Your task to perform on an android device: Search for pizza restaurants on Maps Image 0: 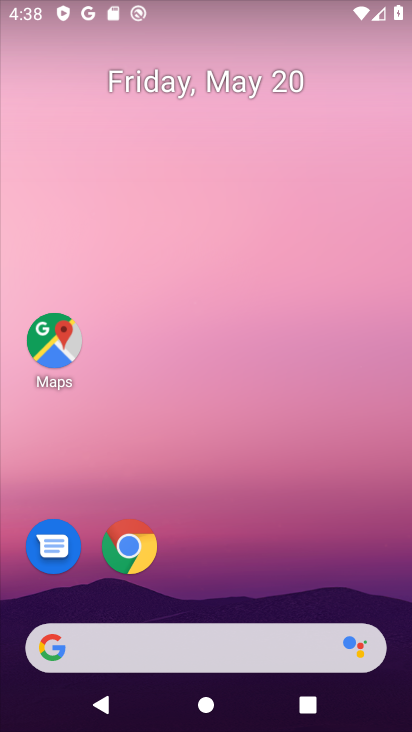
Step 0: click (54, 342)
Your task to perform on an android device: Search for pizza restaurants on Maps Image 1: 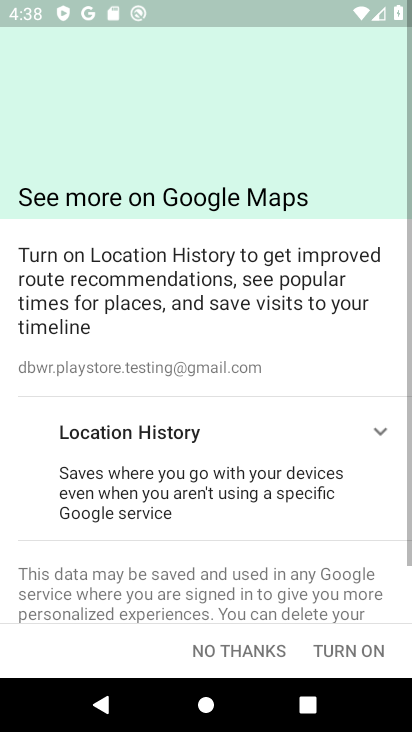
Step 1: click (182, 60)
Your task to perform on an android device: Search for pizza restaurants on Maps Image 2: 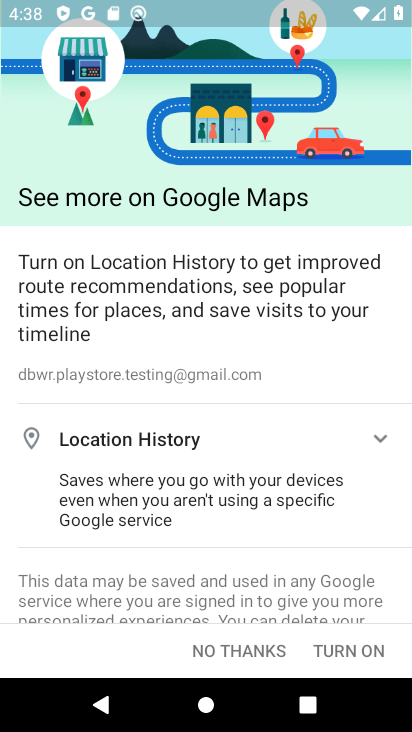
Step 2: click (232, 646)
Your task to perform on an android device: Search for pizza restaurants on Maps Image 3: 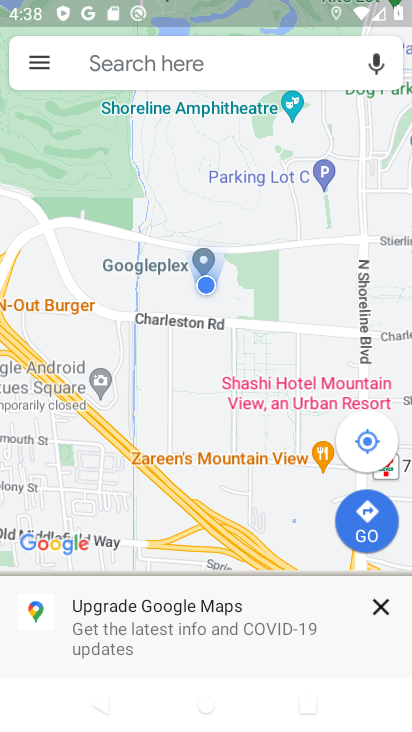
Step 3: click (175, 65)
Your task to perform on an android device: Search for pizza restaurants on Maps Image 4: 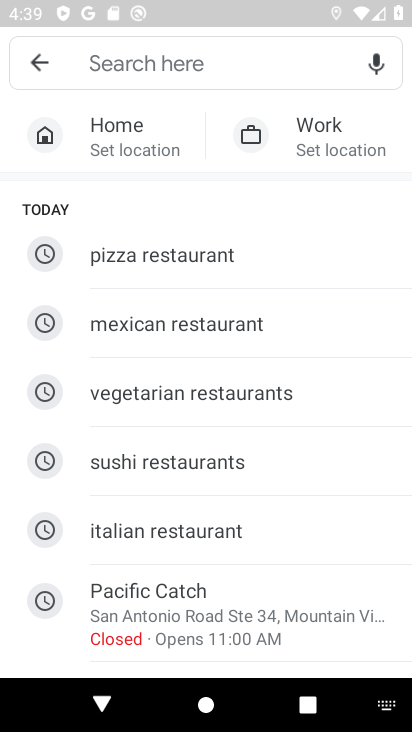
Step 4: type "pizza restaurants"
Your task to perform on an android device: Search for pizza restaurants on Maps Image 5: 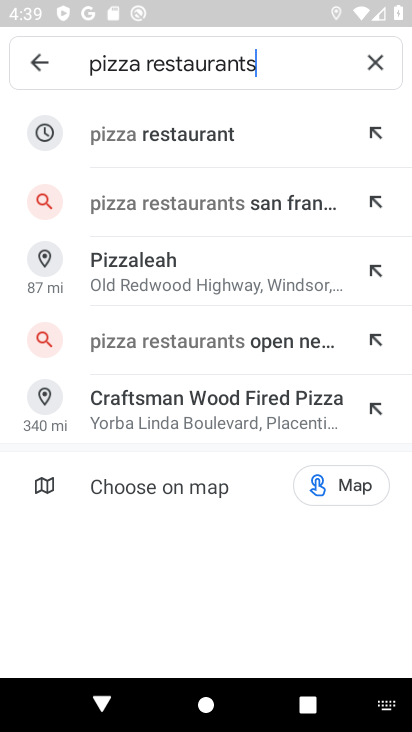
Step 5: click (171, 138)
Your task to perform on an android device: Search for pizza restaurants on Maps Image 6: 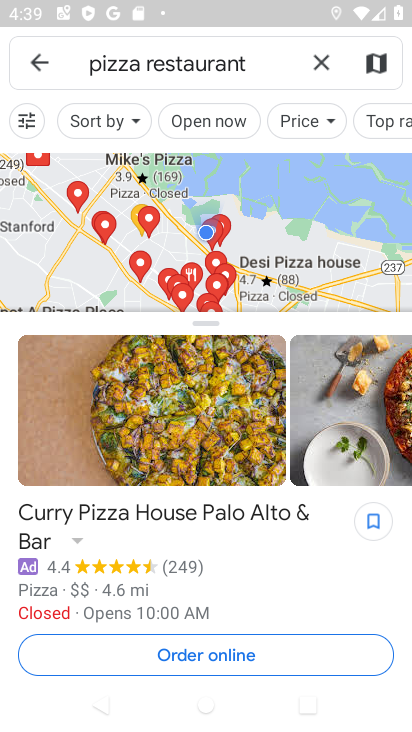
Step 6: task complete